Your task to perform on an android device: Open Wikipedia Image 0: 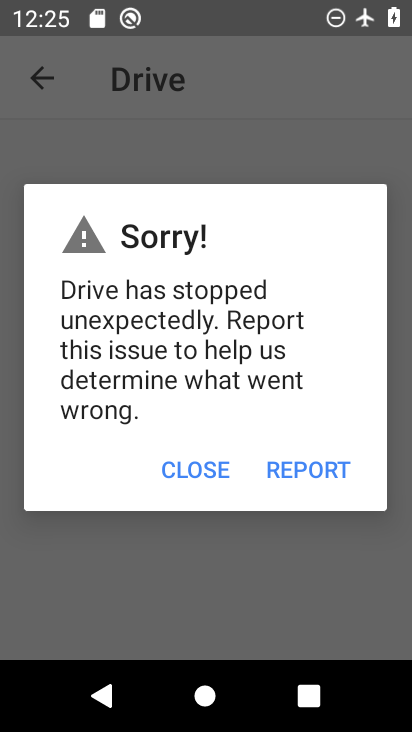
Step 0: press home button
Your task to perform on an android device: Open Wikipedia Image 1: 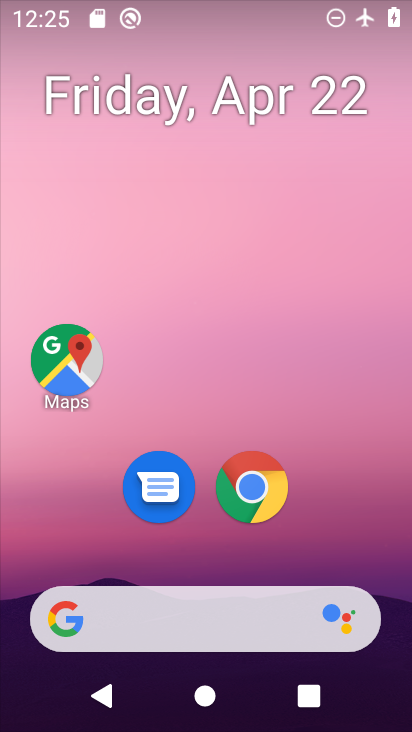
Step 1: drag from (328, 533) to (353, 150)
Your task to perform on an android device: Open Wikipedia Image 2: 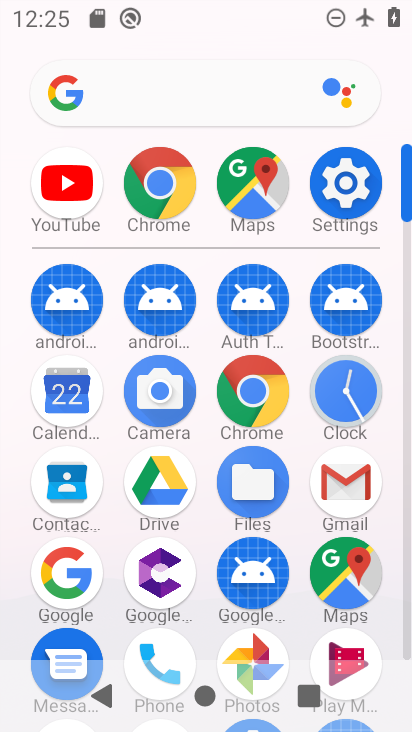
Step 2: click (153, 167)
Your task to perform on an android device: Open Wikipedia Image 3: 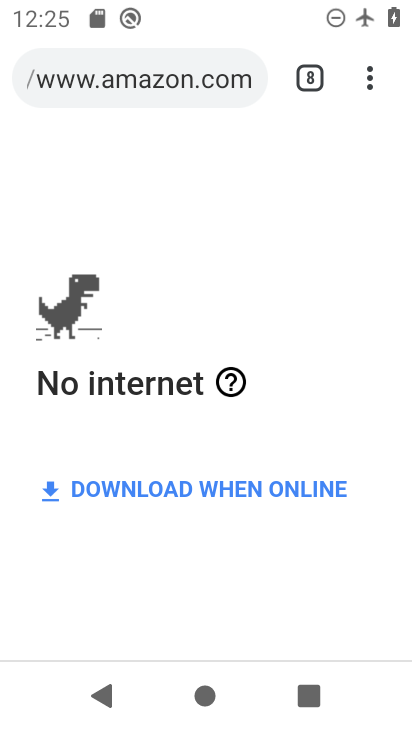
Step 3: click (361, 68)
Your task to perform on an android device: Open Wikipedia Image 4: 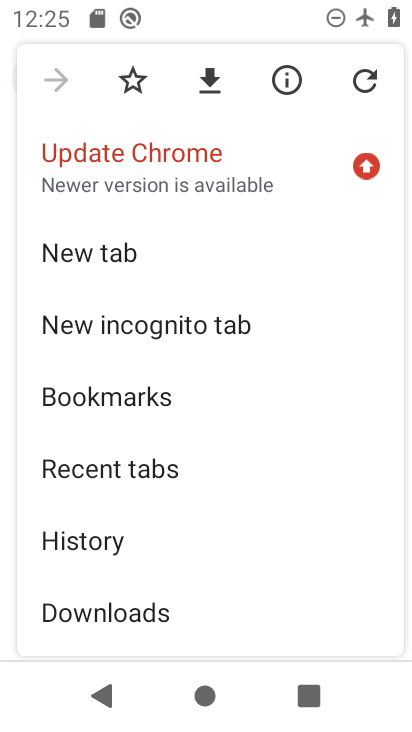
Step 4: click (106, 253)
Your task to perform on an android device: Open Wikipedia Image 5: 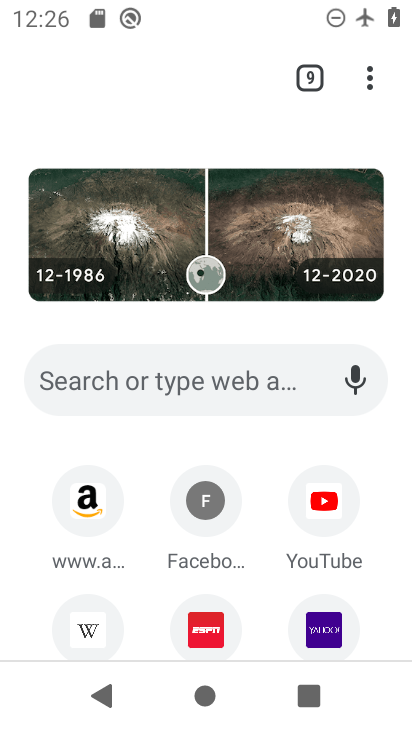
Step 5: click (97, 614)
Your task to perform on an android device: Open Wikipedia Image 6: 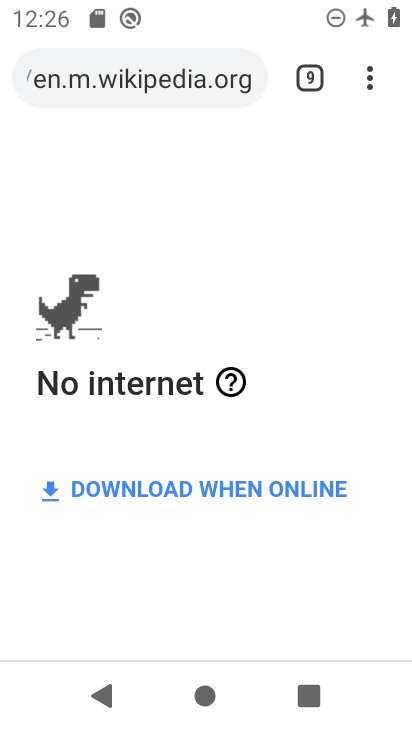
Step 6: task complete